Your task to perform on an android device: turn on wifi Image 0: 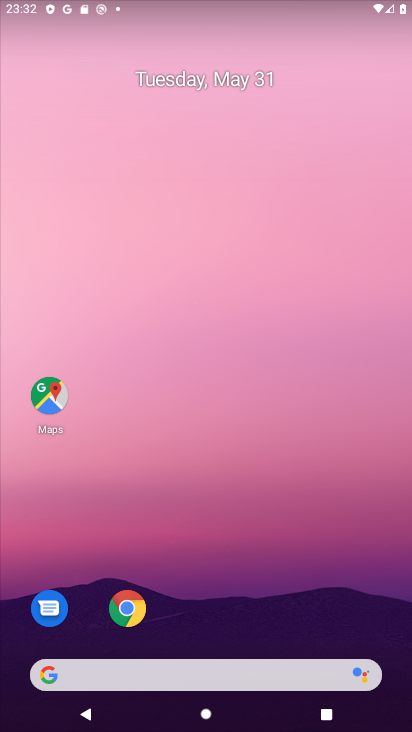
Step 0: press home button
Your task to perform on an android device: turn on wifi Image 1: 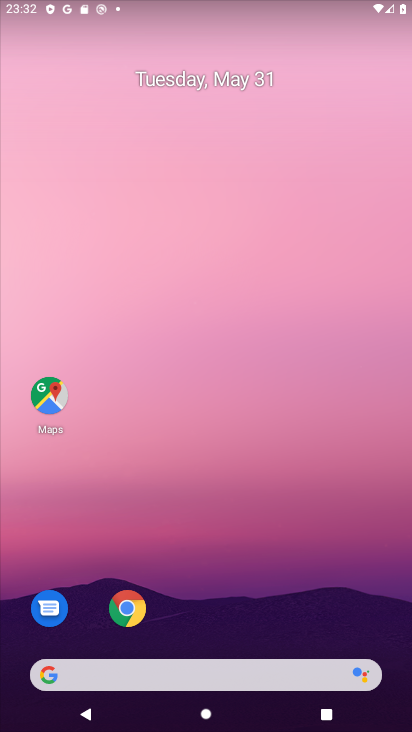
Step 1: task complete